Your task to perform on an android device: turn off airplane mode Image 0: 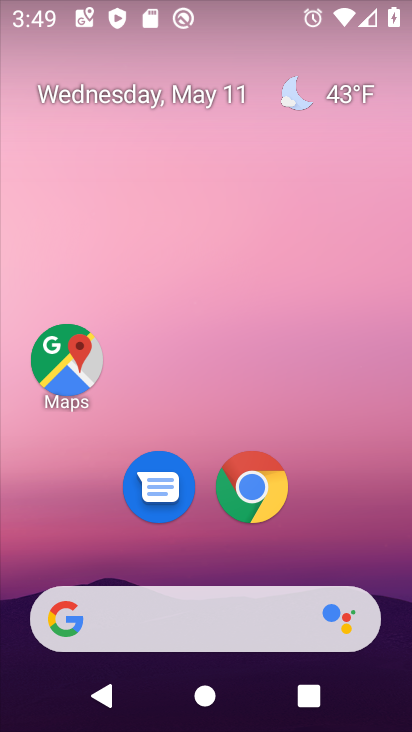
Step 0: drag from (308, 552) to (306, 158)
Your task to perform on an android device: turn off airplane mode Image 1: 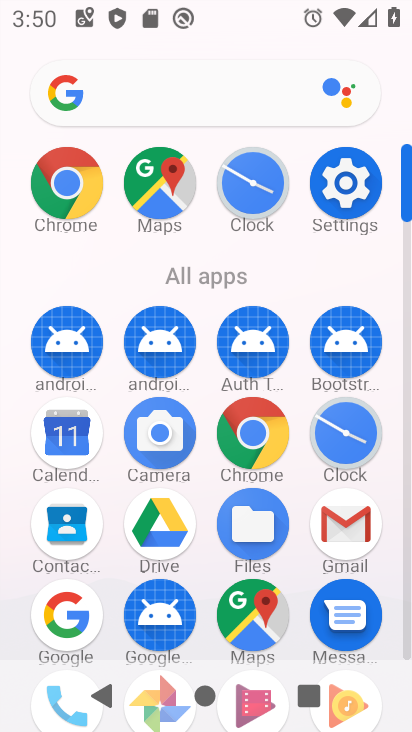
Step 1: drag from (281, 608) to (281, 297)
Your task to perform on an android device: turn off airplane mode Image 2: 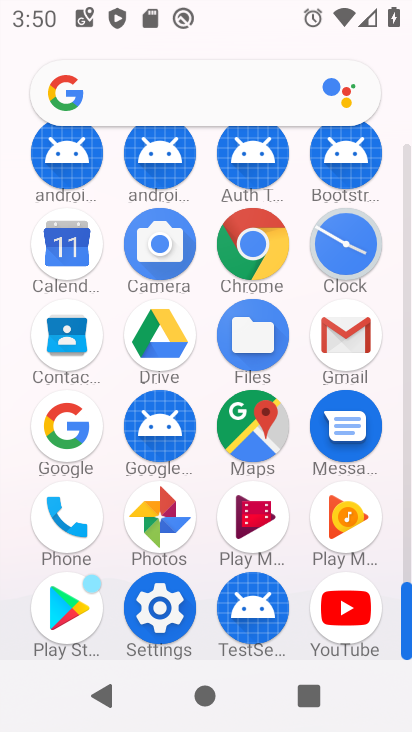
Step 2: click (162, 599)
Your task to perform on an android device: turn off airplane mode Image 3: 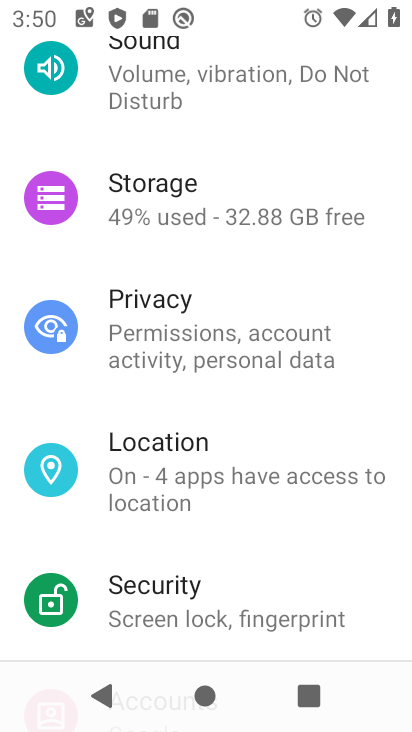
Step 3: drag from (217, 172) to (193, 523)
Your task to perform on an android device: turn off airplane mode Image 4: 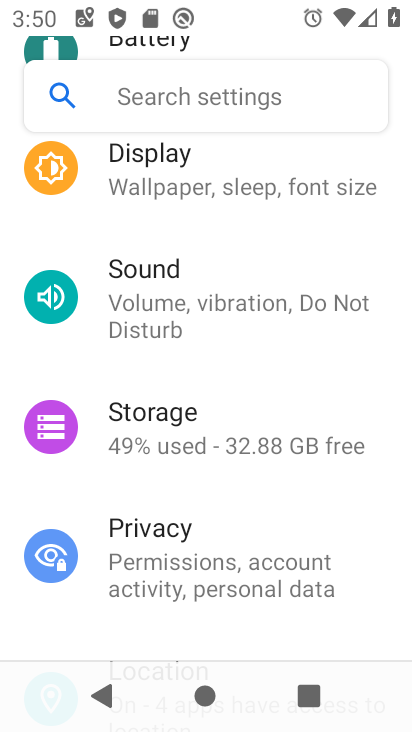
Step 4: drag from (232, 224) to (185, 607)
Your task to perform on an android device: turn off airplane mode Image 5: 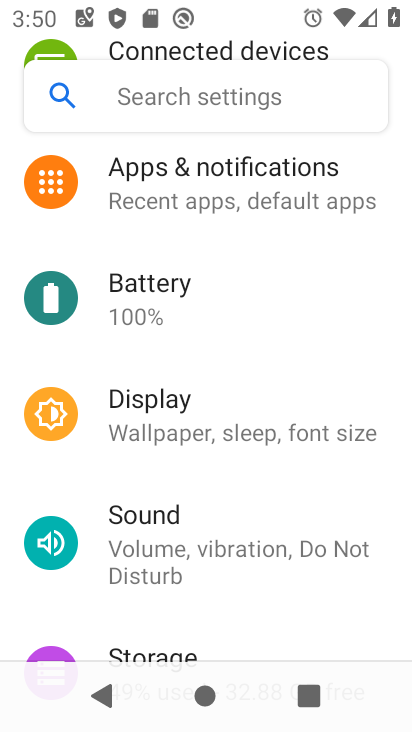
Step 5: drag from (245, 239) to (229, 430)
Your task to perform on an android device: turn off airplane mode Image 6: 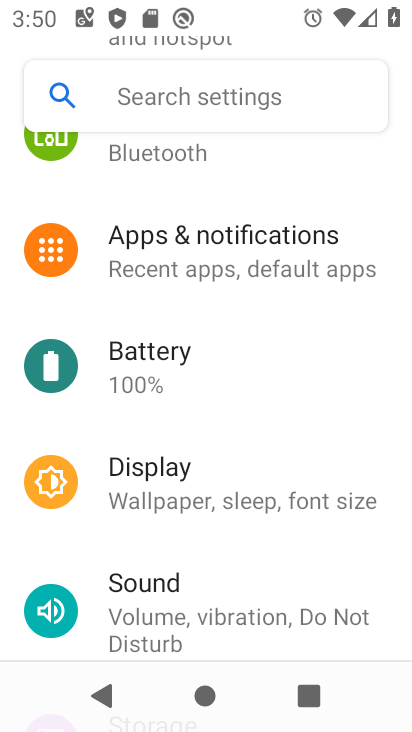
Step 6: drag from (213, 205) to (204, 497)
Your task to perform on an android device: turn off airplane mode Image 7: 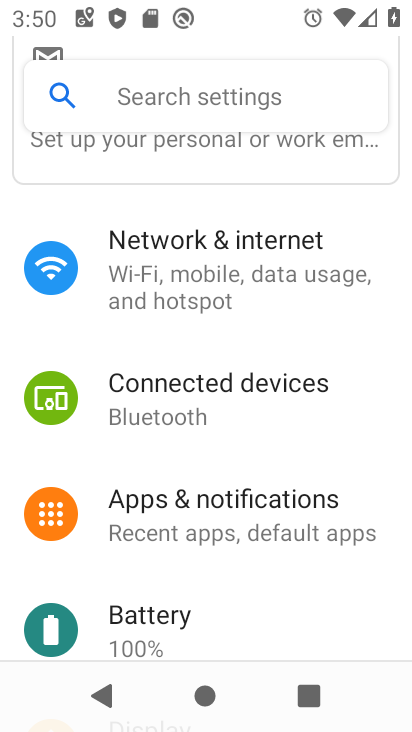
Step 7: click (202, 289)
Your task to perform on an android device: turn off airplane mode Image 8: 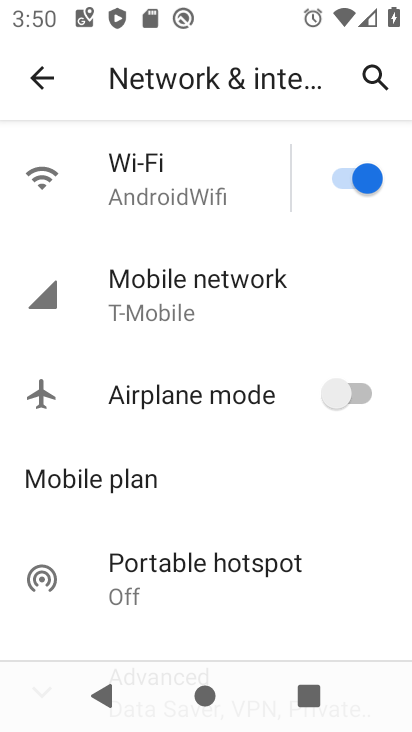
Step 8: task complete